Your task to perform on an android device: toggle translation in the chrome app Image 0: 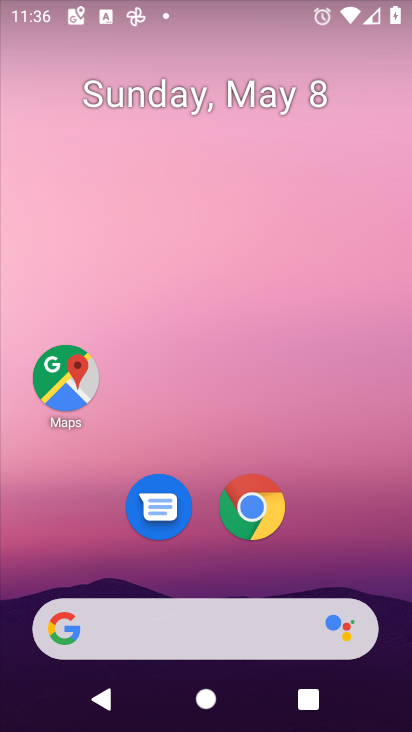
Step 0: click (266, 511)
Your task to perform on an android device: toggle translation in the chrome app Image 1: 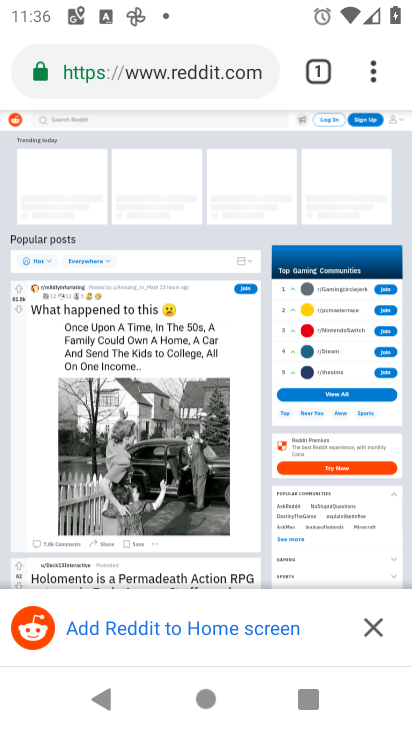
Step 1: click (374, 72)
Your task to perform on an android device: toggle translation in the chrome app Image 2: 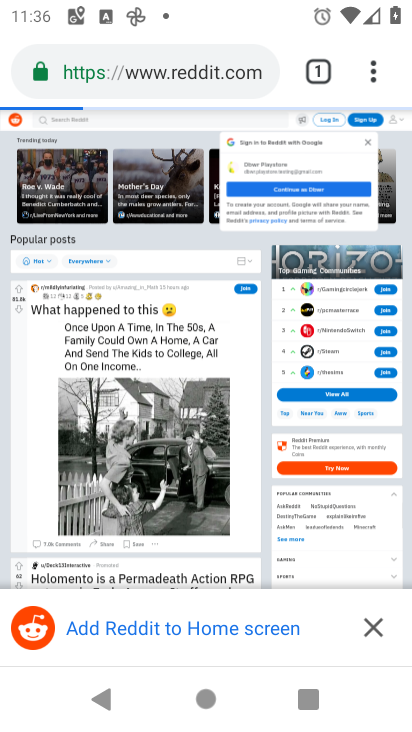
Step 2: click (373, 68)
Your task to perform on an android device: toggle translation in the chrome app Image 3: 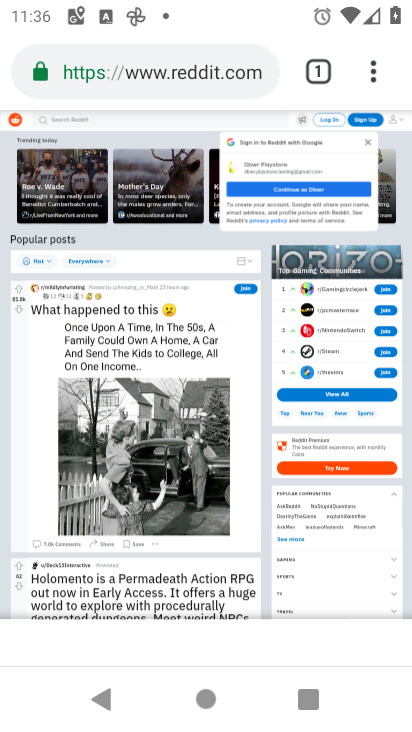
Step 3: click (372, 67)
Your task to perform on an android device: toggle translation in the chrome app Image 4: 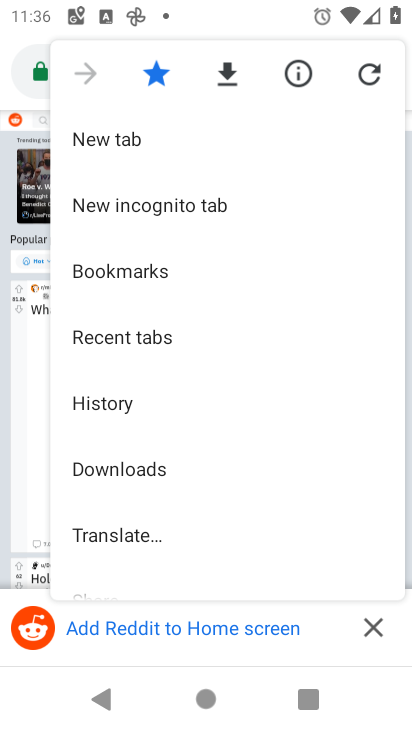
Step 4: drag from (313, 524) to (142, 11)
Your task to perform on an android device: toggle translation in the chrome app Image 5: 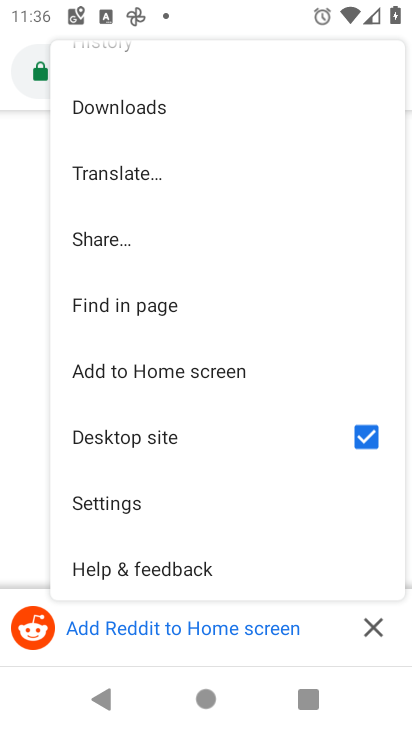
Step 5: click (135, 506)
Your task to perform on an android device: toggle translation in the chrome app Image 6: 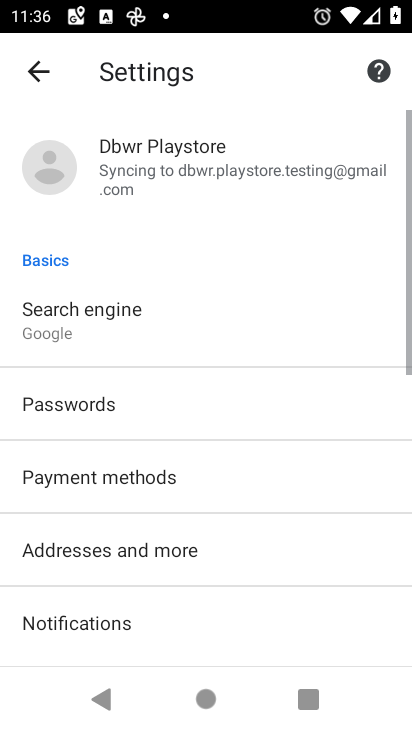
Step 6: drag from (191, 531) to (201, 156)
Your task to perform on an android device: toggle translation in the chrome app Image 7: 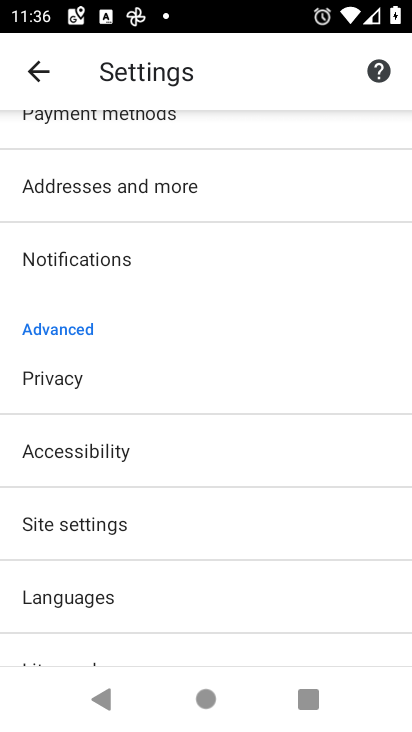
Step 7: click (61, 581)
Your task to perform on an android device: toggle translation in the chrome app Image 8: 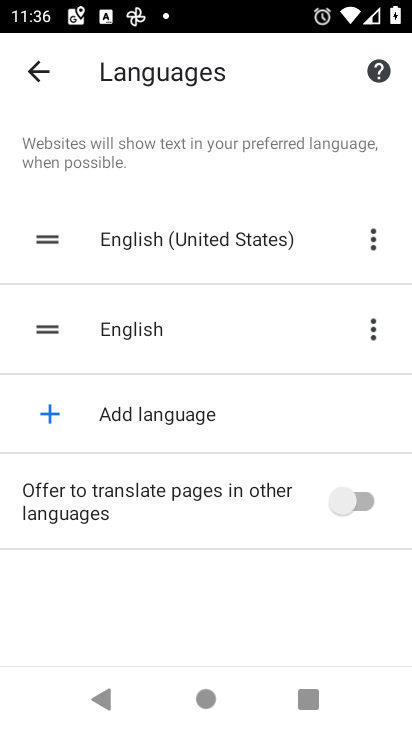
Step 8: click (361, 499)
Your task to perform on an android device: toggle translation in the chrome app Image 9: 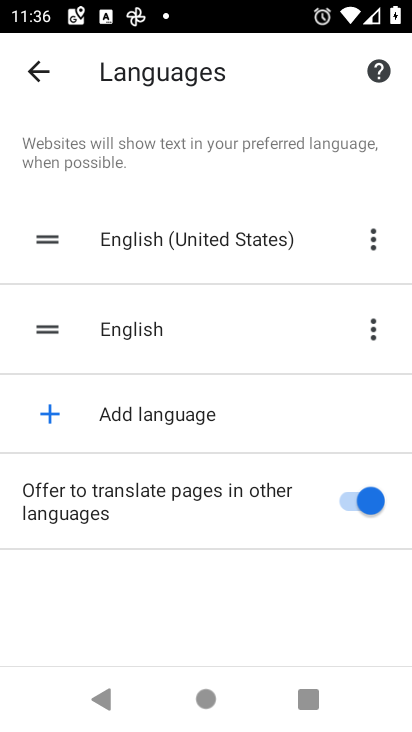
Step 9: task complete